Your task to perform on an android device: What's the weather? Image 0: 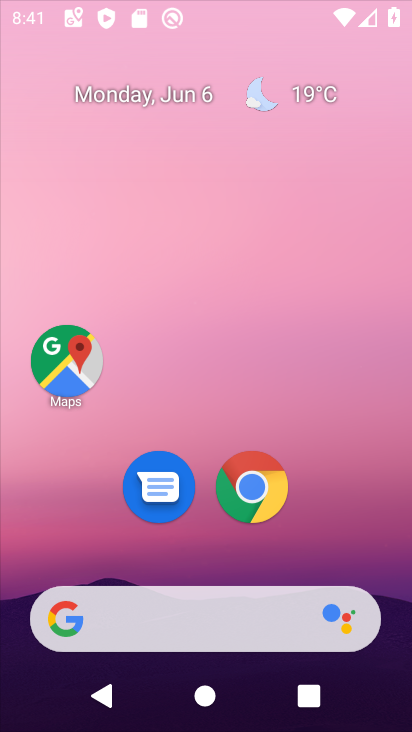
Step 0: press home button
Your task to perform on an android device: What's the weather? Image 1: 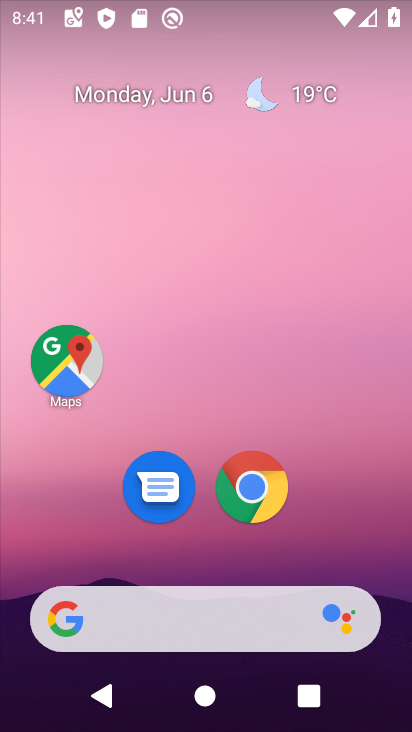
Step 1: click (311, 91)
Your task to perform on an android device: What's the weather? Image 2: 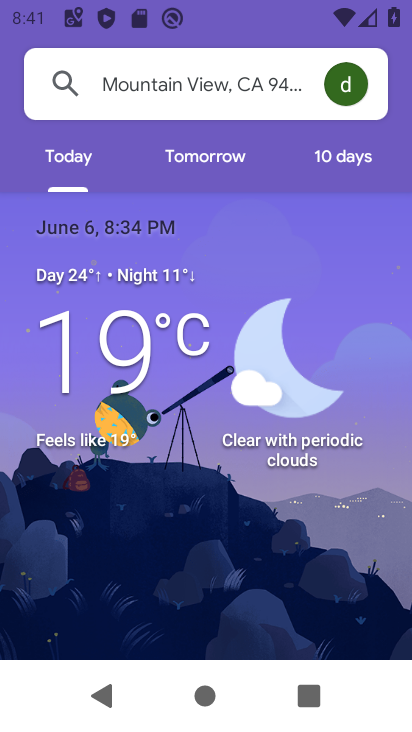
Step 2: task complete